Your task to perform on an android device: Open the calendar app, open the side menu, and click the "Day" option Image 0: 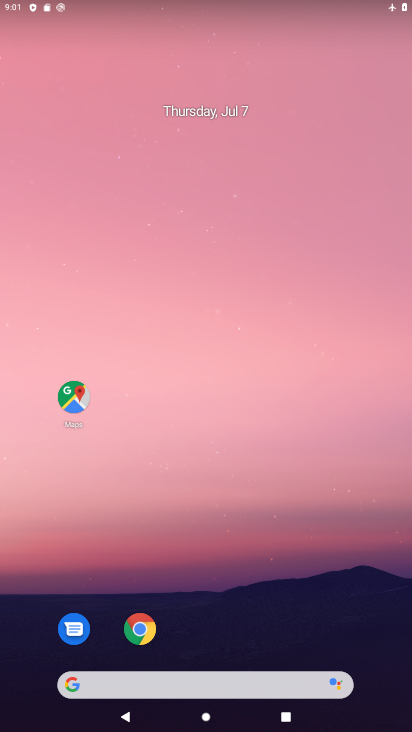
Step 0: drag from (235, 579) to (170, 231)
Your task to perform on an android device: Open the calendar app, open the side menu, and click the "Day" option Image 1: 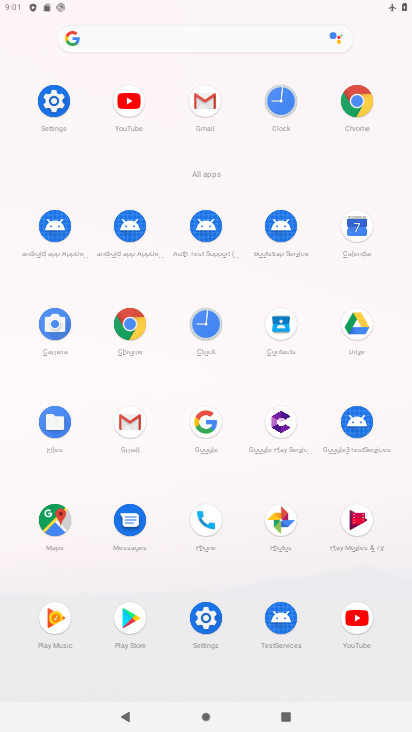
Step 1: click (356, 222)
Your task to perform on an android device: Open the calendar app, open the side menu, and click the "Day" option Image 2: 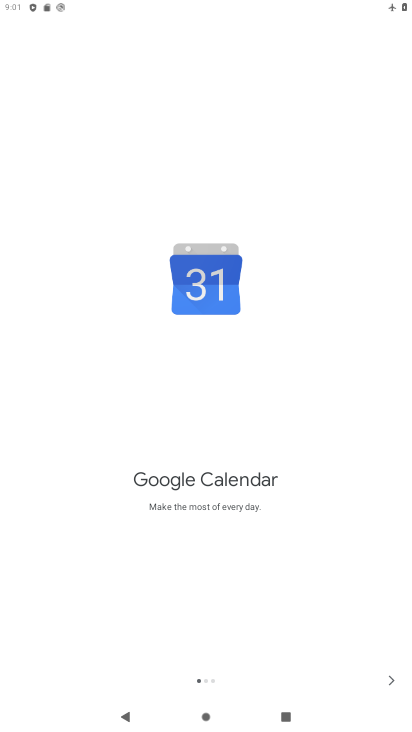
Step 2: click (389, 684)
Your task to perform on an android device: Open the calendar app, open the side menu, and click the "Day" option Image 3: 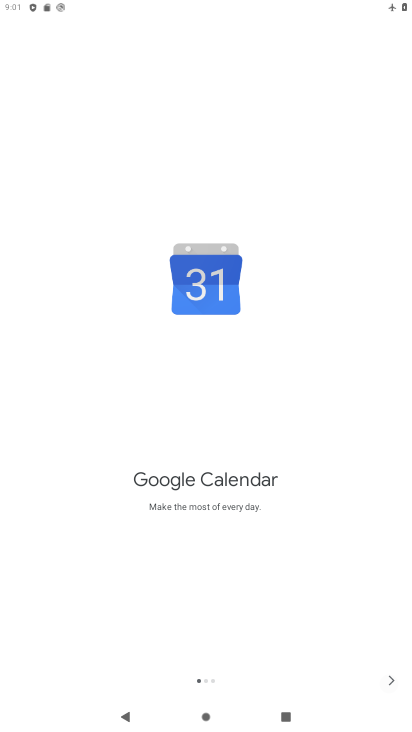
Step 3: click (389, 684)
Your task to perform on an android device: Open the calendar app, open the side menu, and click the "Day" option Image 4: 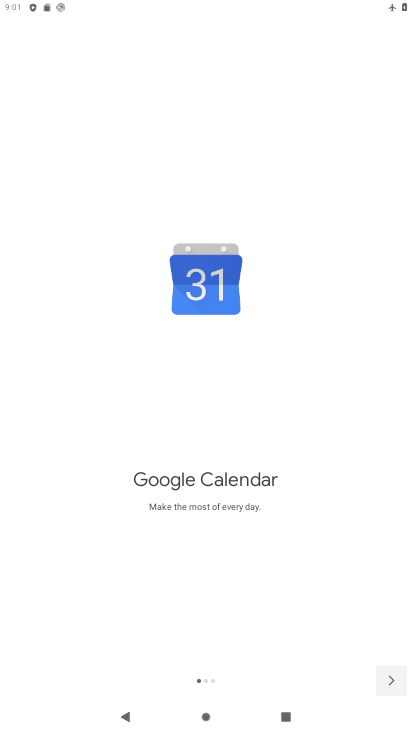
Step 4: click (389, 684)
Your task to perform on an android device: Open the calendar app, open the side menu, and click the "Day" option Image 5: 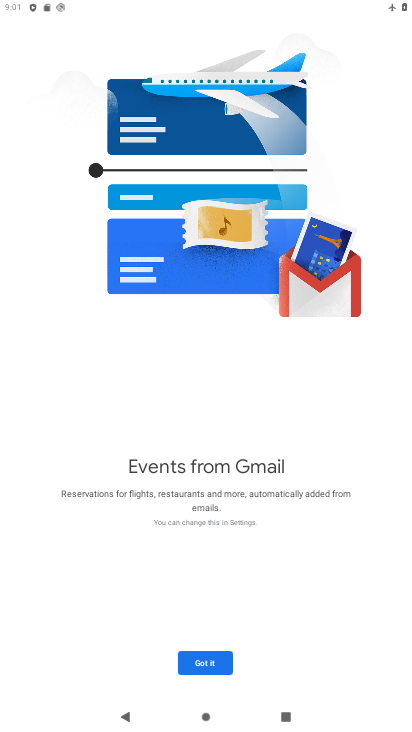
Step 5: click (209, 661)
Your task to perform on an android device: Open the calendar app, open the side menu, and click the "Day" option Image 6: 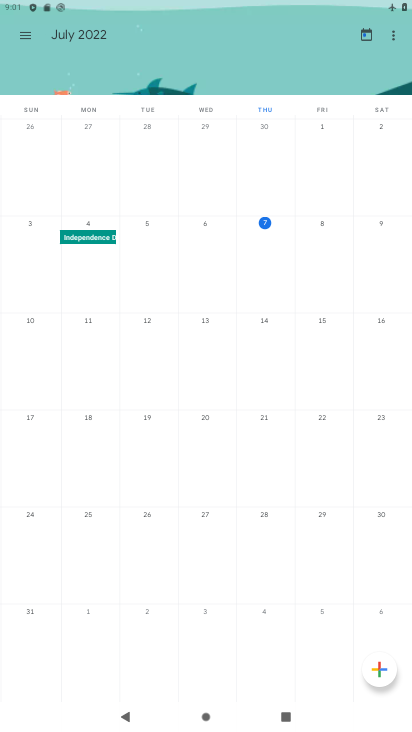
Step 6: click (24, 36)
Your task to perform on an android device: Open the calendar app, open the side menu, and click the "Day" option Image 7: 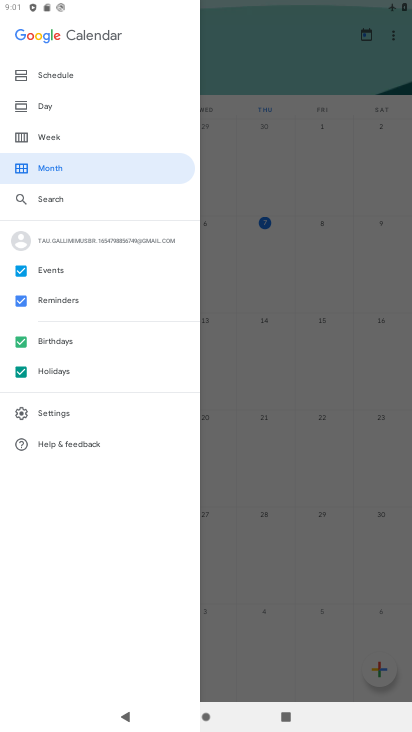
Step 7: click (45, 99)
Your task to perform on an android device: Open the calendar app, open the side menu, and click the "Day" option Image 8: 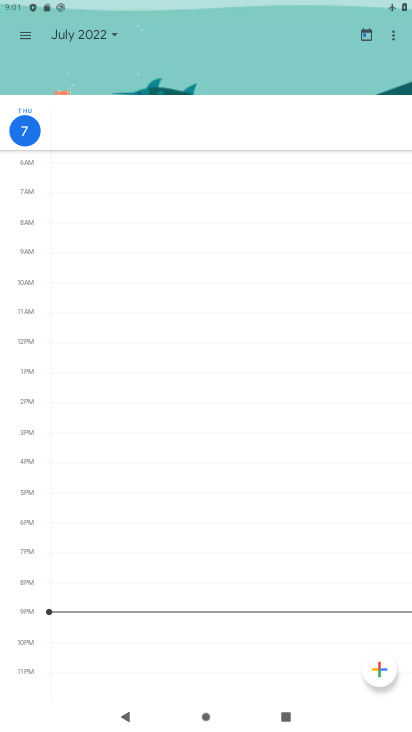
Step 8: task complete